Your task to perform on an android device: open app "Duolingo: language lessons" Image 0: 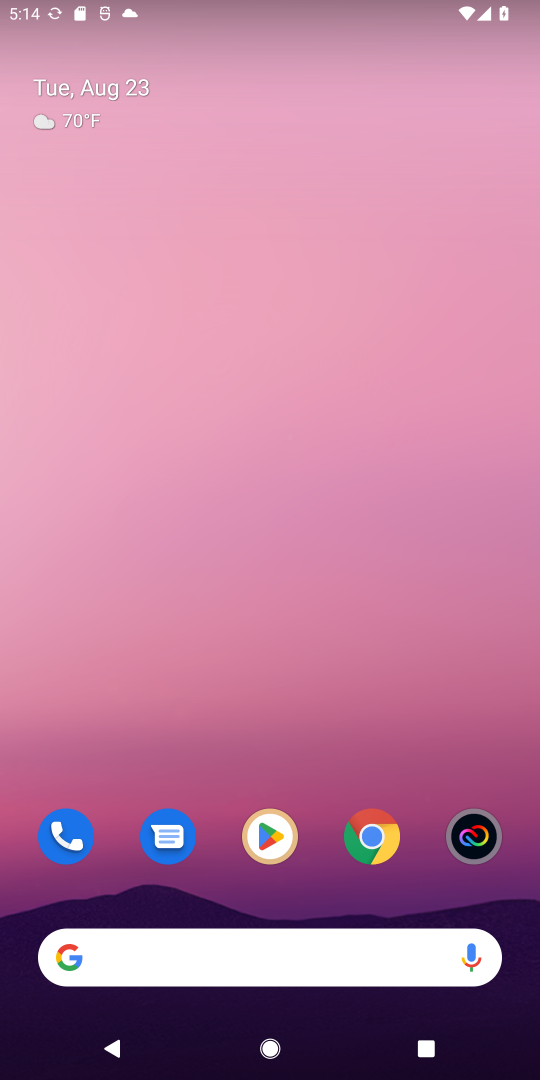
Step 0: click (274, 834)
Your task to perform on an android device: open app "Duolingo: language lessons" Image 1: 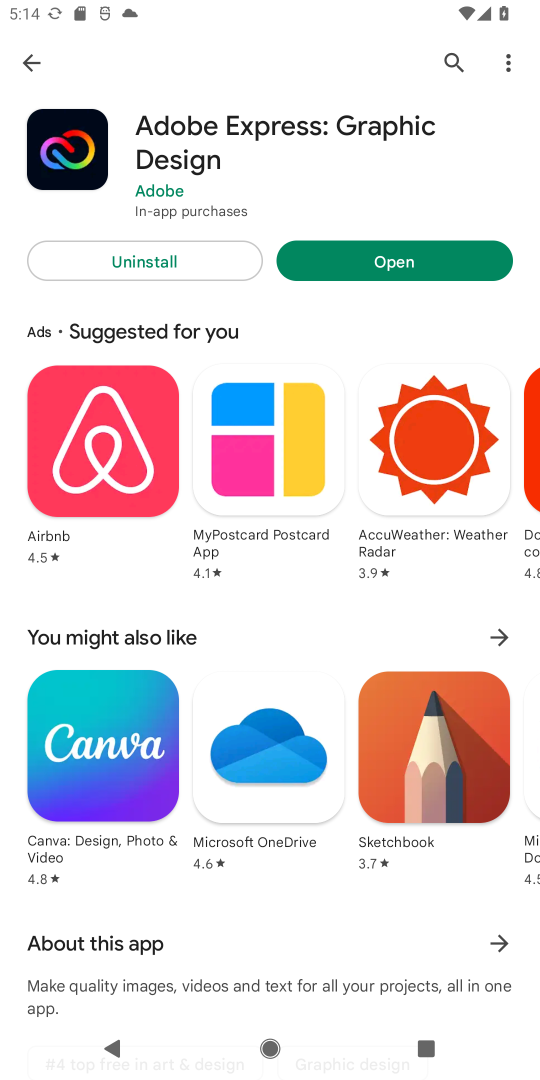
Step 1: click (450, 56)
Your task to perform on an android device: open app "Duolingo: language lessons" Image 2: 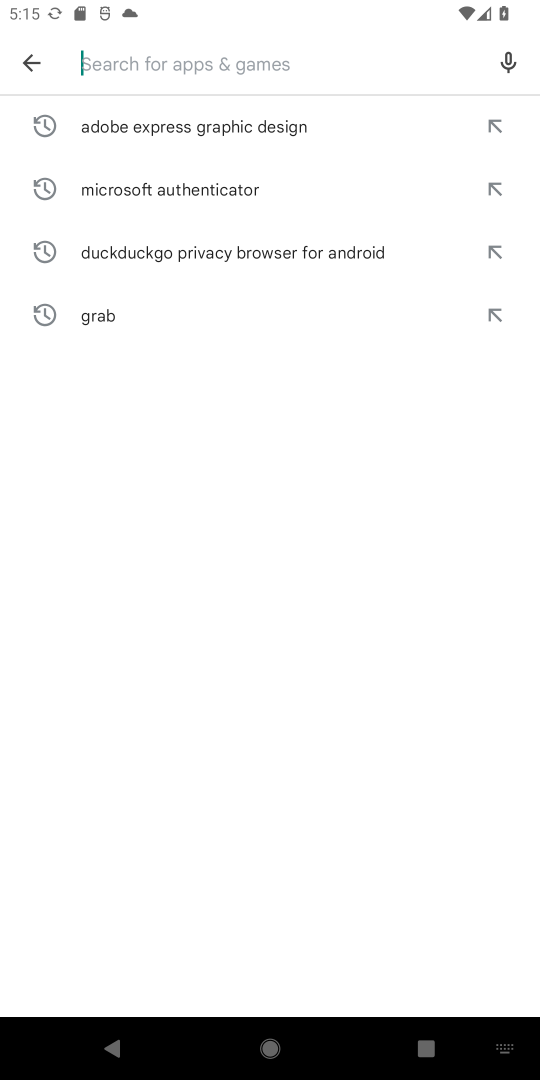
Step 2: type "Duolingo: language lessons"
Your task to perform on an android device: open app "Duolingo: language lessons" Image 3: 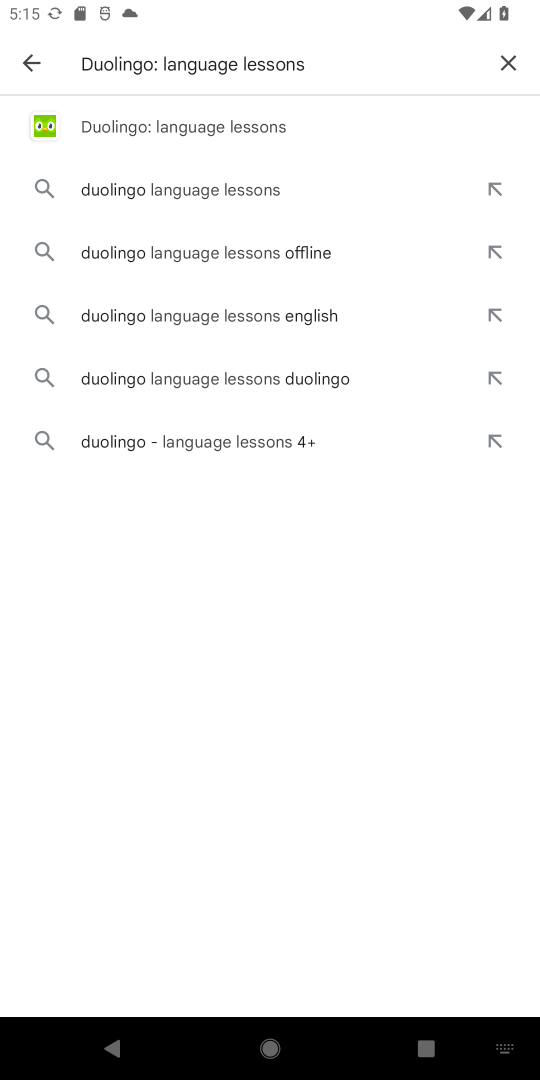
Step 3: click (111, 129)
Your task to perform on an android device: open app "Duolingo: language lessons" Image 4: 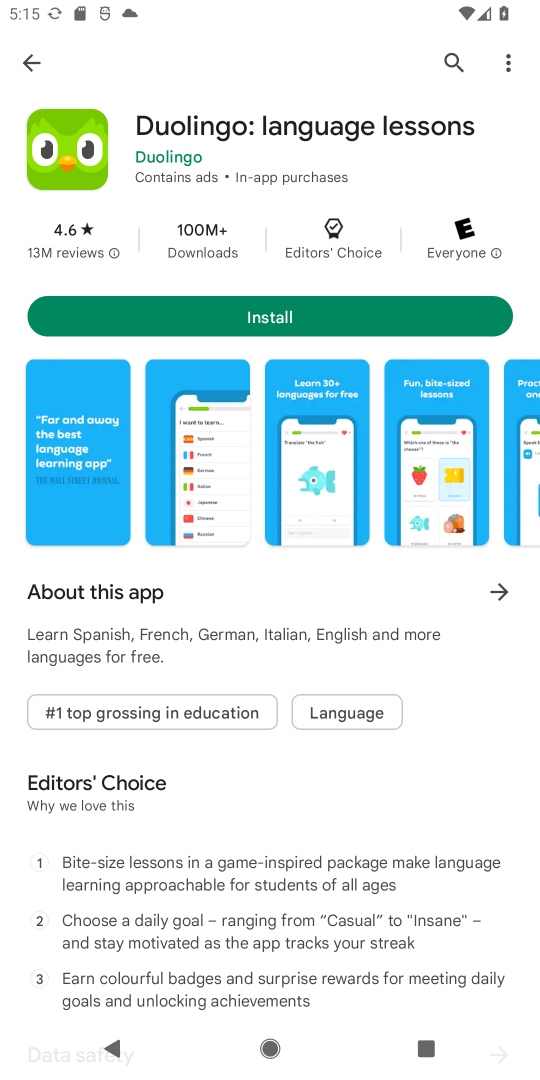
Step 4: task complete